Your task to perform on an android device: find snoozed emails in the gmail app Image 0: 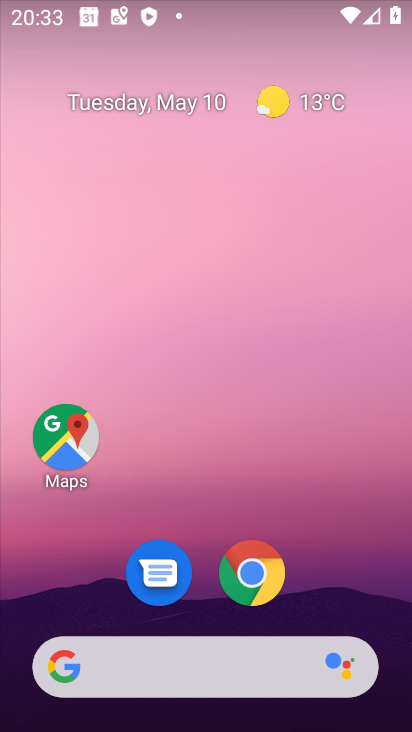
Step 0: drag from (355, 643) to (335, 40)
Your task to perform on an android device: find snoozed emails in the gmail app Image 1: 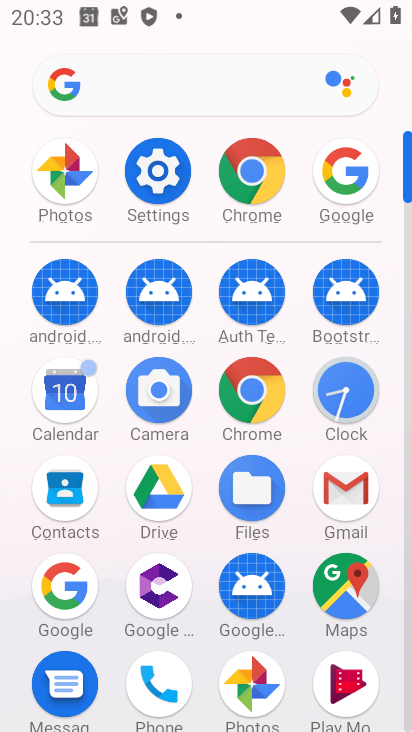
Step 1: click (349, 490)
Your task to perform on an android device: find snoozed emails in the gmail app Image 2: 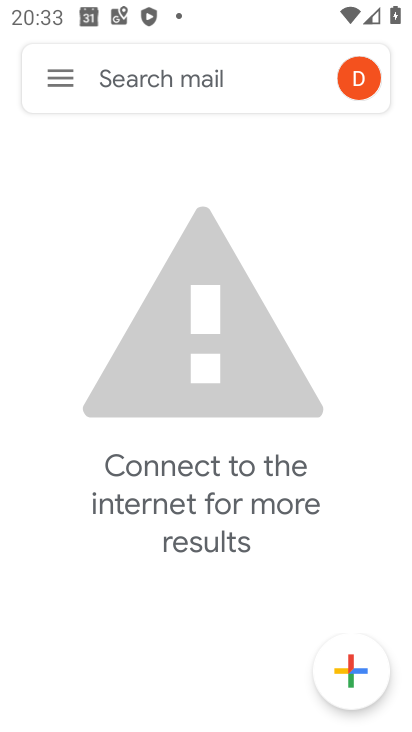
Step 2: click (59, 76)
Your task to perform on an android device: find snoozed emails in the gmail app Image 3: 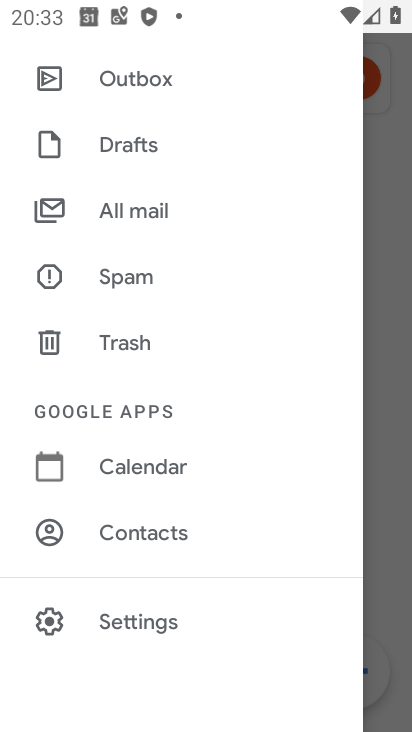
Step 3: drag from (170, 237) to (192, 652)
Your task to perform on an android device: find snoozed emails in the gmail app Image 4: 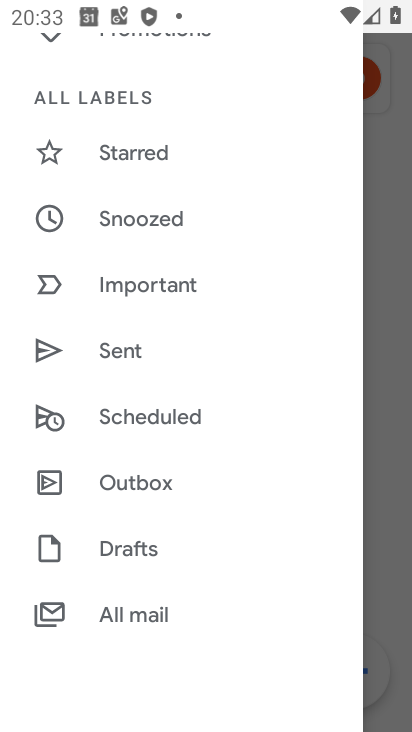
Step 4: click (120, 225)
Your task to perform on an android device: find snoozed emails in the gmail app Image 5: 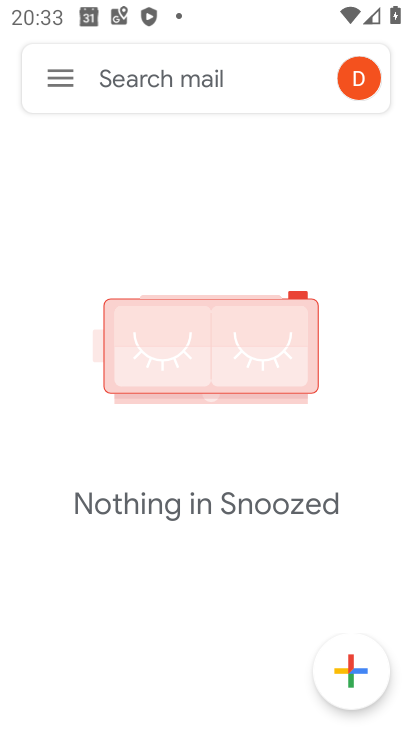
Step 5: task complete